Your task to perform on an android device: set the stopwatch Image 0: 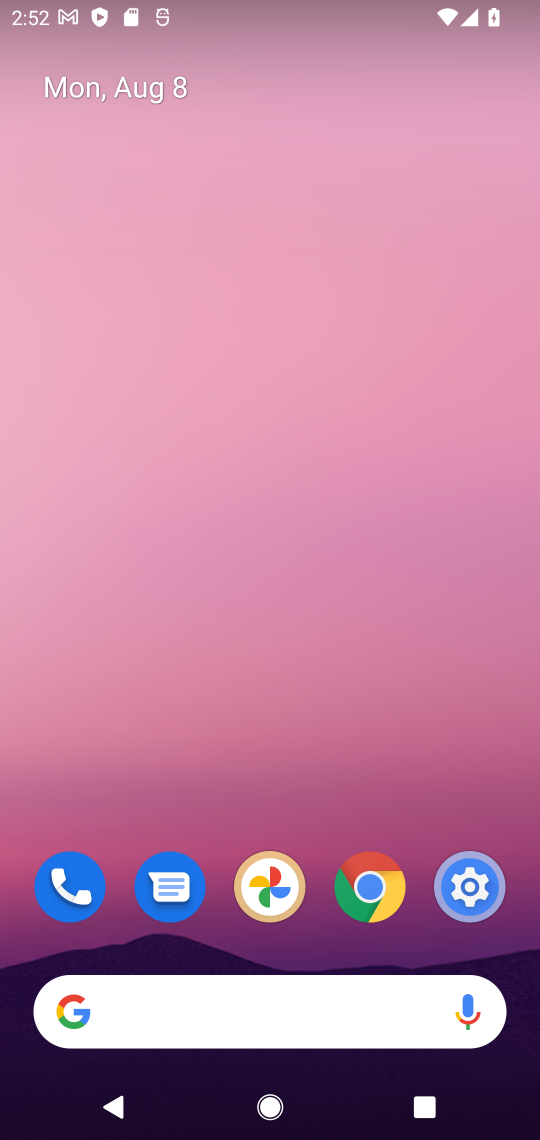
Step 0: drag from (255, 906) to (294, 393)
Your task to perform on an android device: set the stopwatch Image 1: 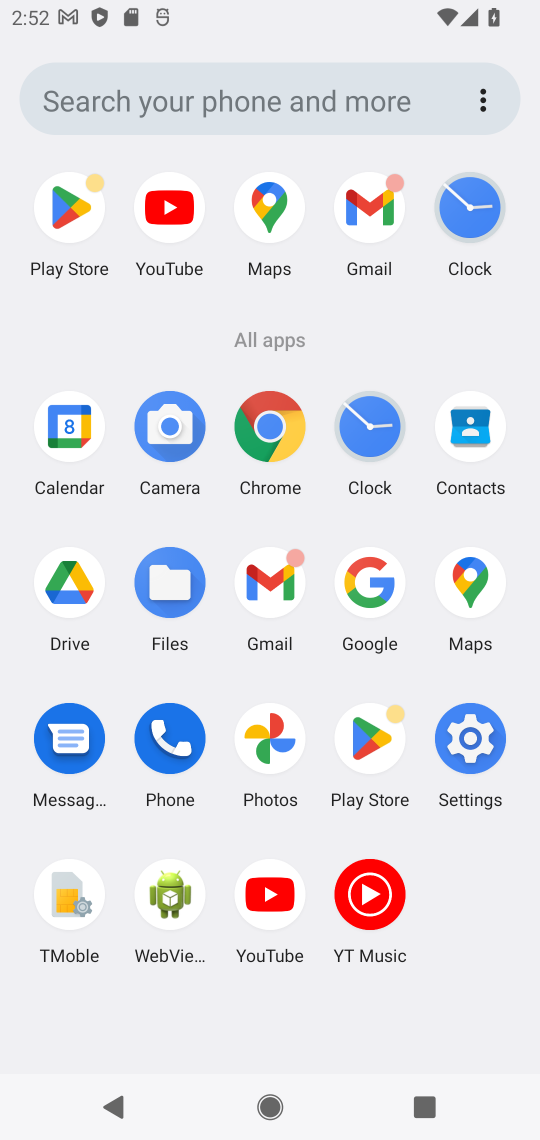
Step 1: click (361, 437)
Your task to perform on an android device: set the stopwatch Image 2: 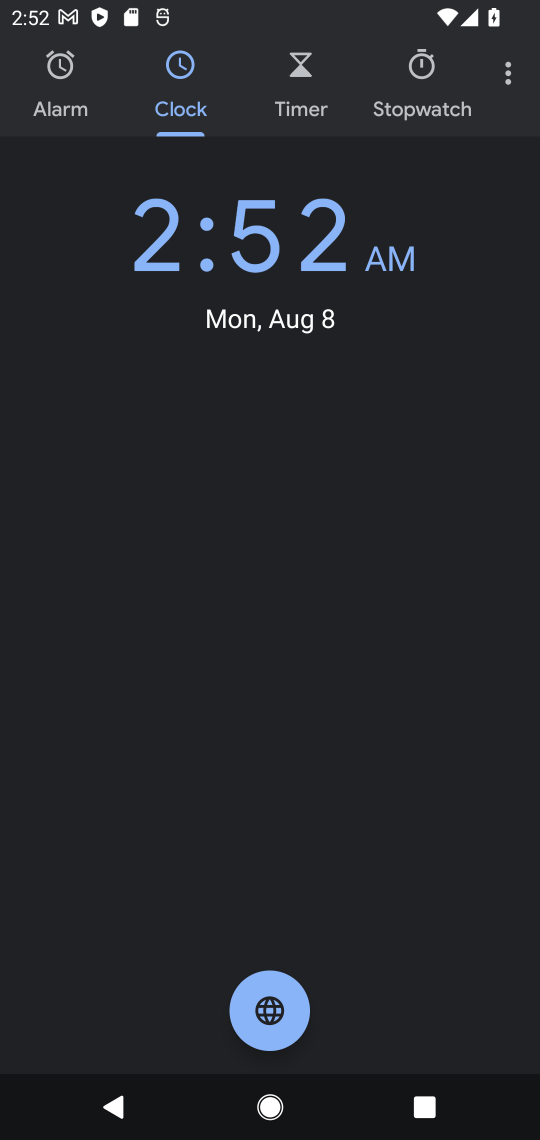
Step 2: click (446, 107)
Your task to perform on an android device: set the stopwatch Image 3: 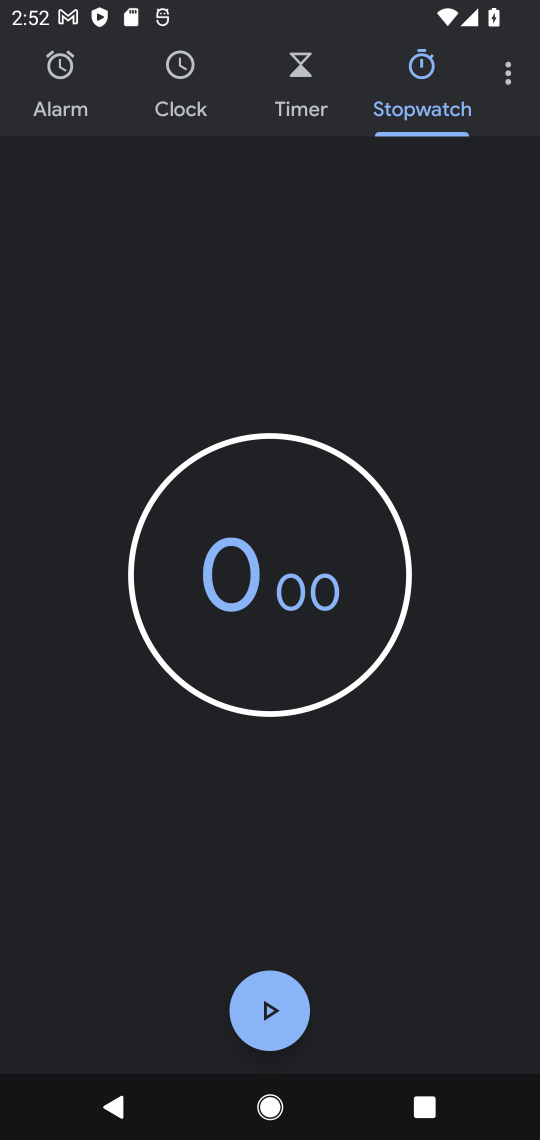
Step 3: click (248, 1041)
Your task to perform on an android device: set the stopwatch Image 4: 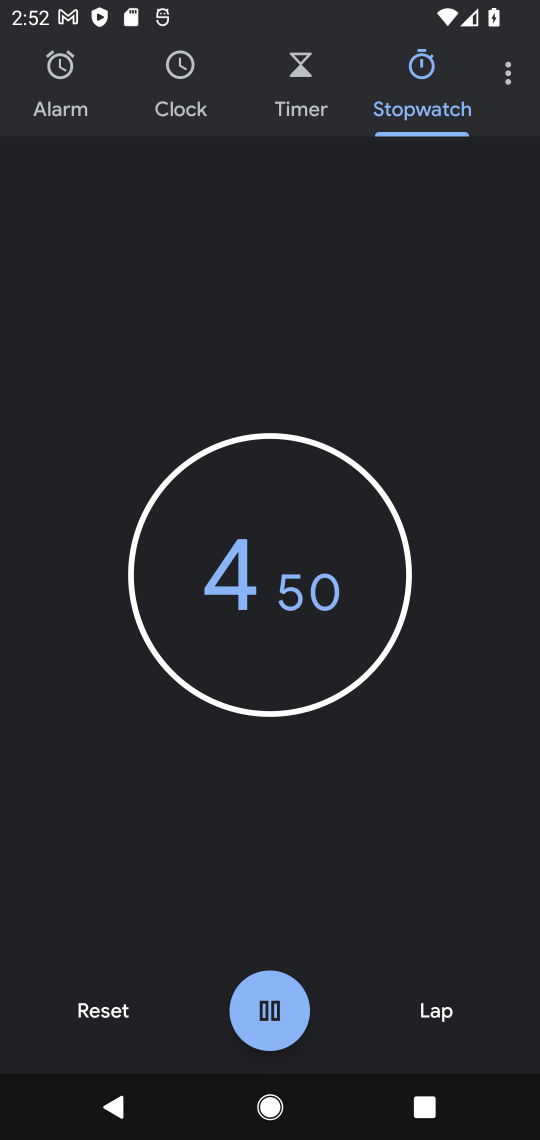
Step 4: click (263, 1027)
Your task to perform on an android device: set the stopwatch Image 5: 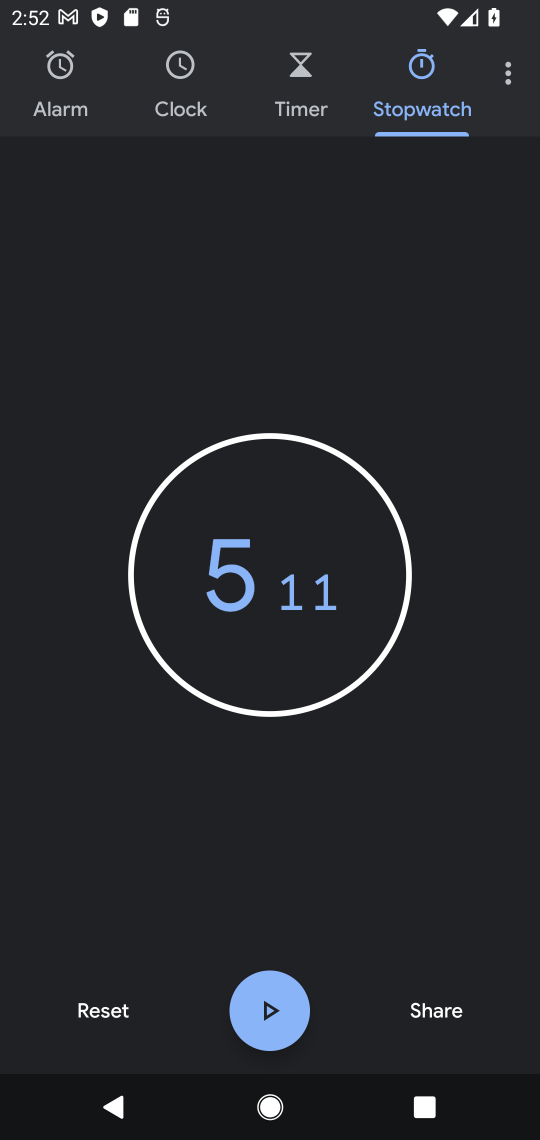
Step 5: task complete